Your task to perform on an android device: Is it going to rain this weekend? Image 0: 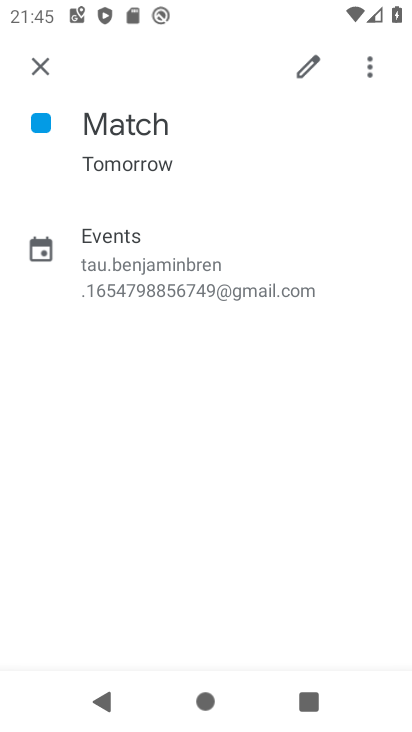
Step 0: press home button
Your task to perform on an android device: Is it going to rain this weekend? Image 1: 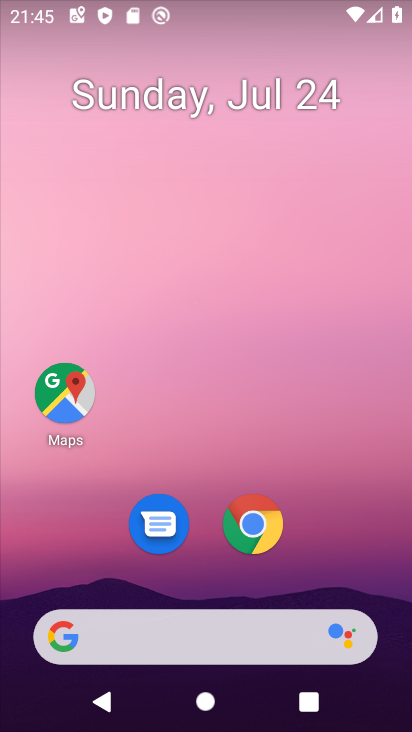
Step 1: click (154, 649)
Your task to perform on an android device: Is it going to rain this weekend? Image 2: 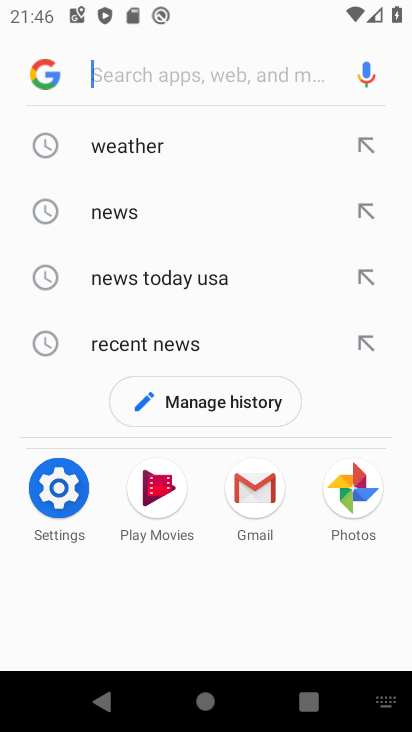
Step 2: click (158, 146)
Your task to perform on an android device: Is it going to rain this weekend? Image 3: 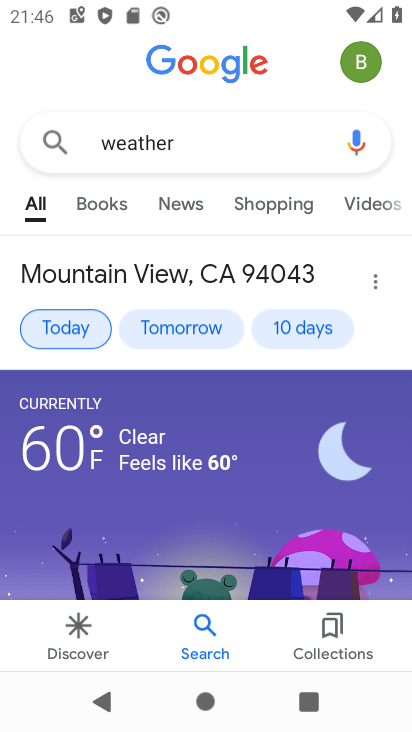
Step 3: click (300, 334)
Your task to perform on an android device: Is it going to rain this weekend? Image 4: 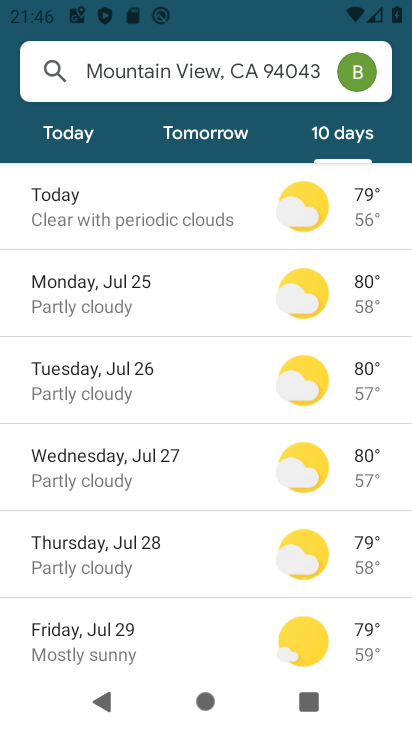
Step 4: task complete